Your task to perform on an android device: check the backup settings in the google photos Image 0: 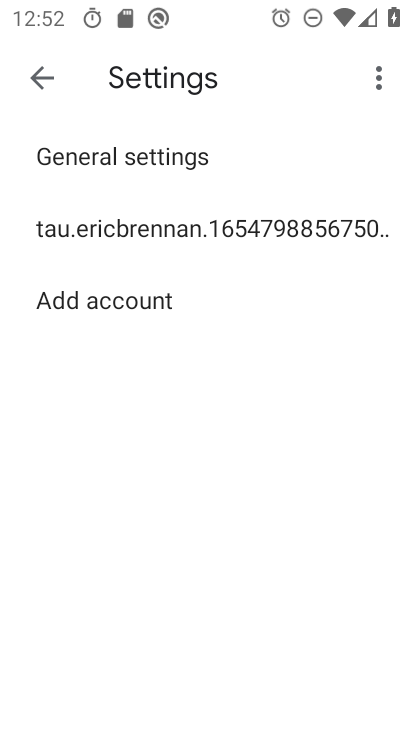
Step 0: press back button
Your task to perform on an android device: check the backup settings in the google photos Image 1: 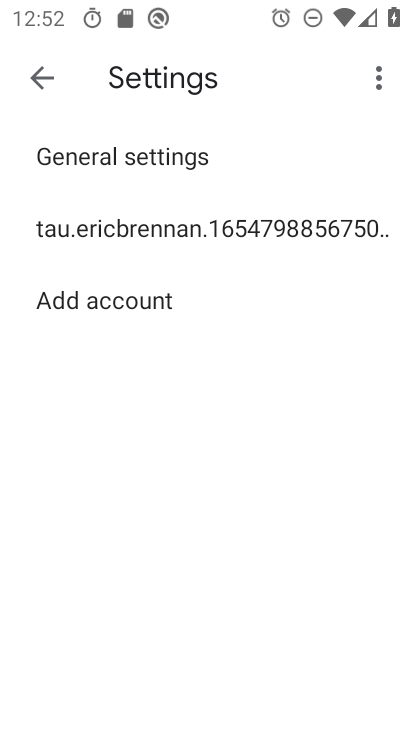
Step 1: press back button
Your task to perform on an android device: check the backup settings in the google photos Image 2: 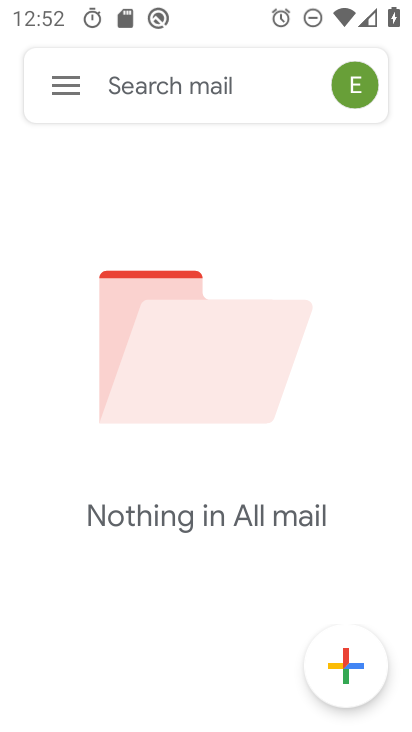
Step 2: press back button
Your task to perform on an android device: check the backup settings in the google photos Image 3: 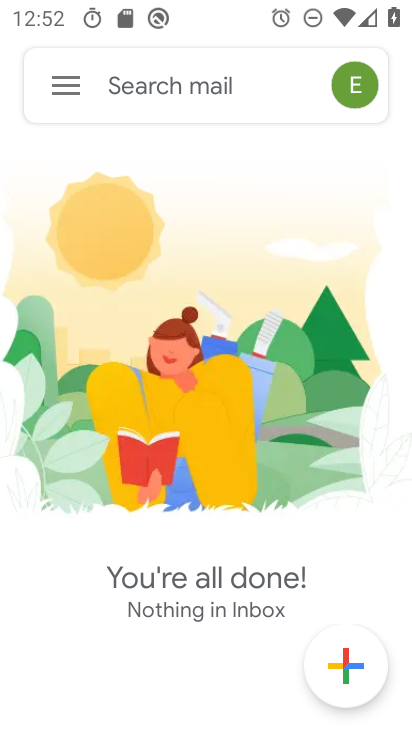
Step 3: press back button
Your task to perform on an android device: check the backup settings in the google photos Image 4: 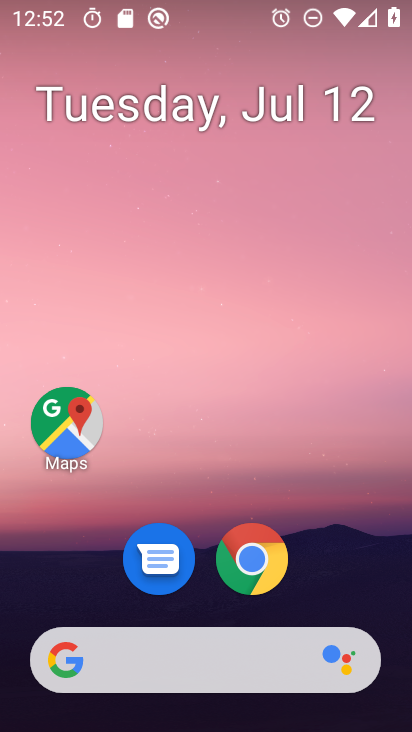
Step 4: drag from (227, 563) to (342, 3)
Your task to perform on an android device: check the backup settings in the google photos Image 5: 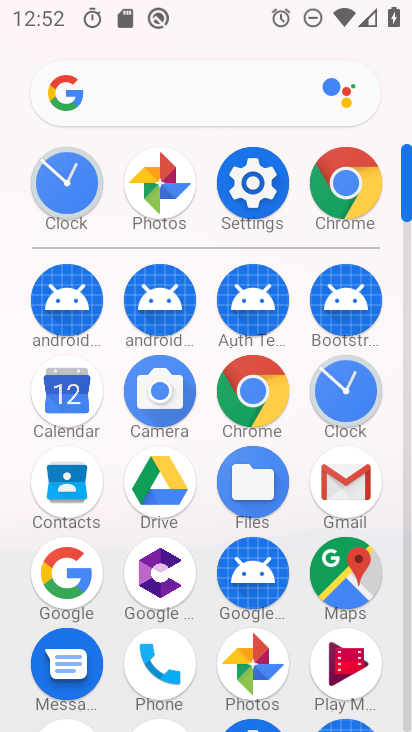
Step 5: click (255, 659)
Your task to perform on an android device: check the backup settings in the google photos Image 6: 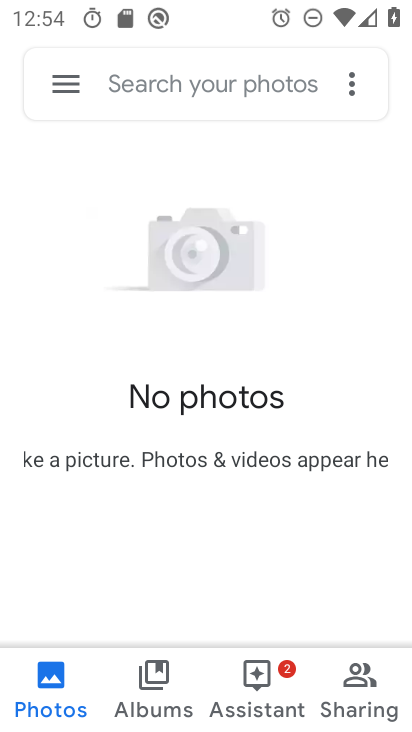
Step 6: click (68, 87)
Your task to perform on an android device: check the backup settings in the google photos Image 7: 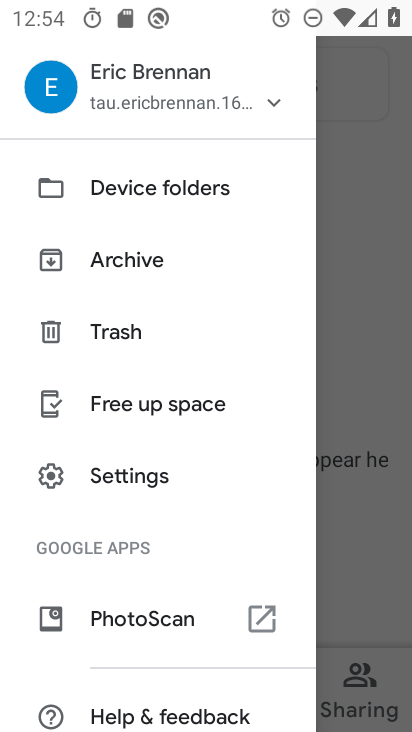
Step 7: drag from (159, 629) to (159, 484)
Your task to perform on an android device: check the backup settings in the google photos Image 8: 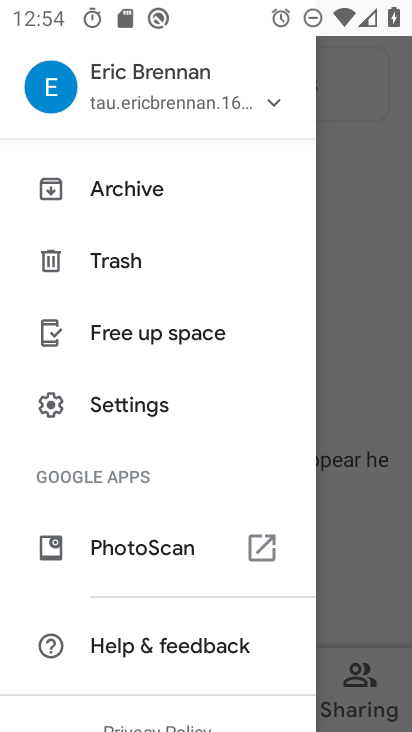
Step 8: click (143, 399)
Your task to perform on an android device: check the backup settings in the google photos Image 9: 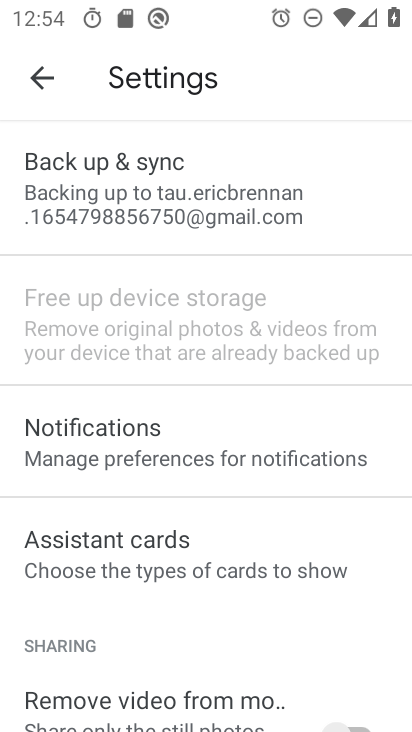
Step 9: click (136, 196)
Your task to perform on an android device: check the backup settings in the google photos Image 10: 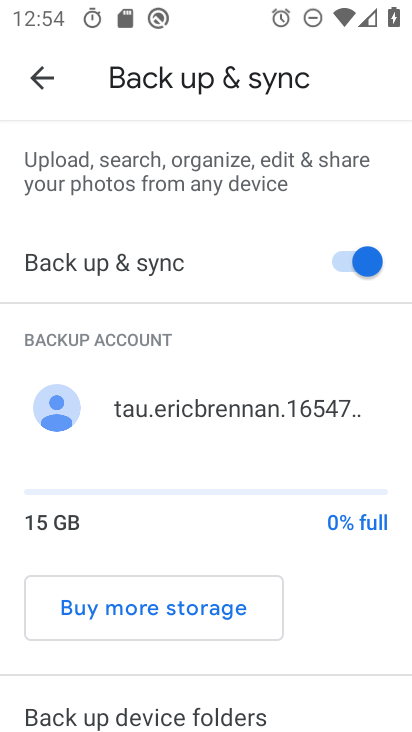
Step 10: task complete